Your task to perform on an android device: turn on sleep mode Image 0: 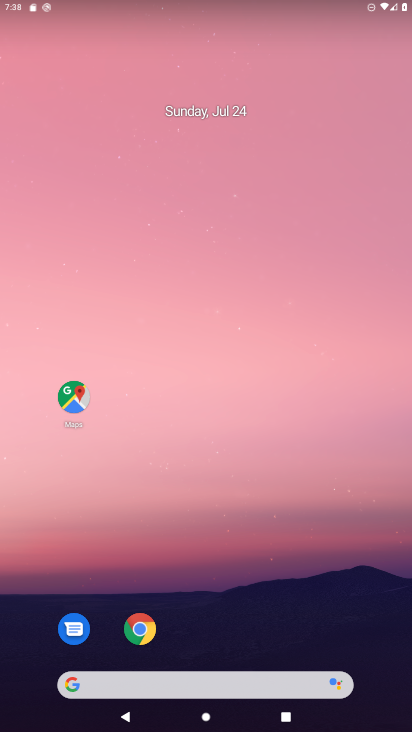
Step 0: drag from (371, 623) to (133, 23)
Your task to perform on an android device: turn on sleep mode Image 1: 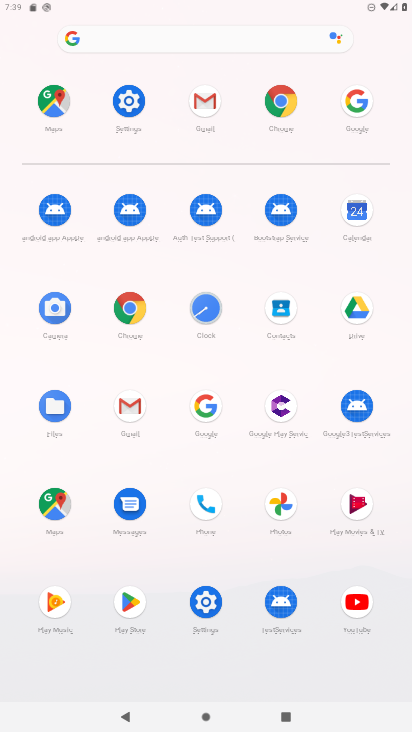
Step 1: click (197, 607)
Your task to perform on an android device: turn on sleep mode Image 2: 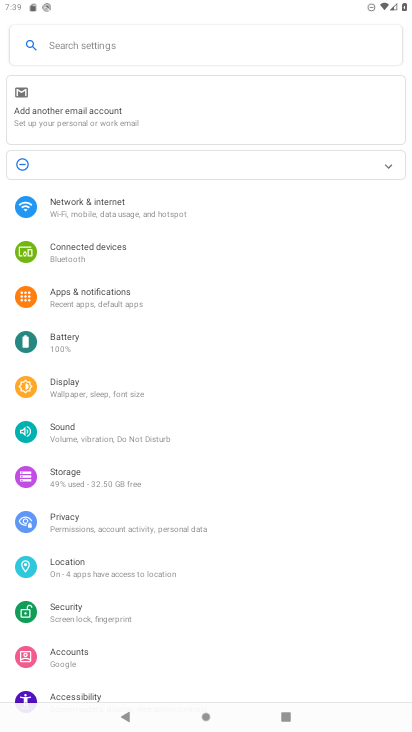
Step 2: task complete